Your task to perform on an android device: Show me recent news Image 0: 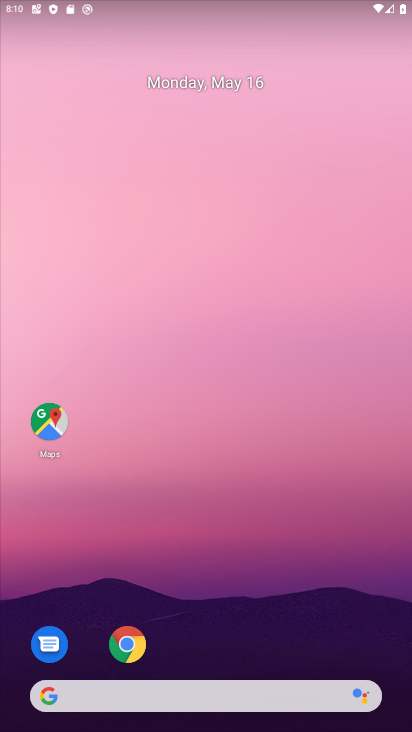
Step 0: drag from (267, 678) to (316, 31)
Your task to perform on an android device: Show me recent news Image 1: 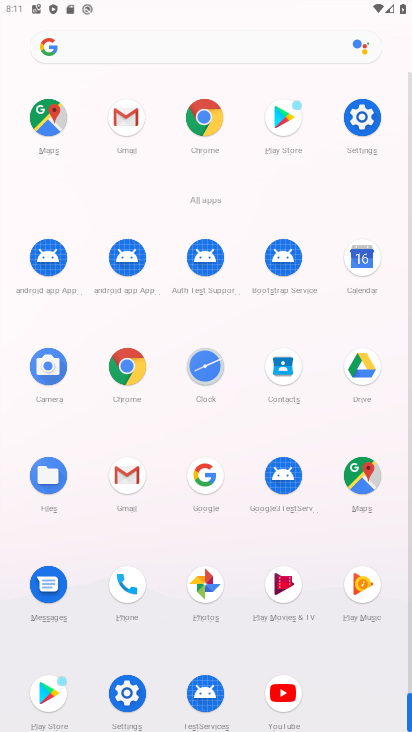
Step 1: click (120, 364)
Your task to perform on an android device: Show me recent news Image 2: 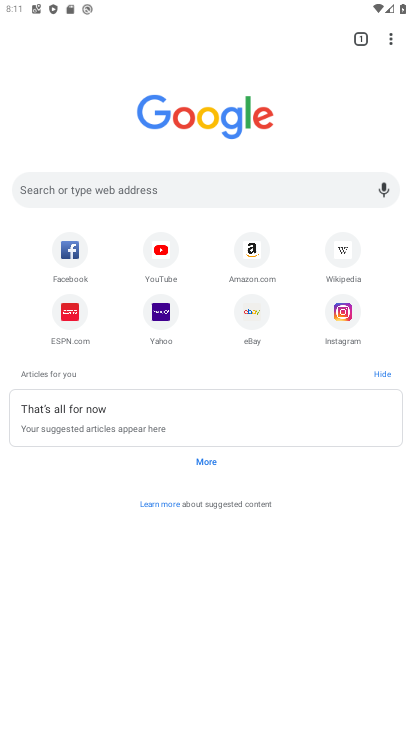
Step 2: click (206, 192)
Your task to perform on an android device: Show me recent news Image 3: 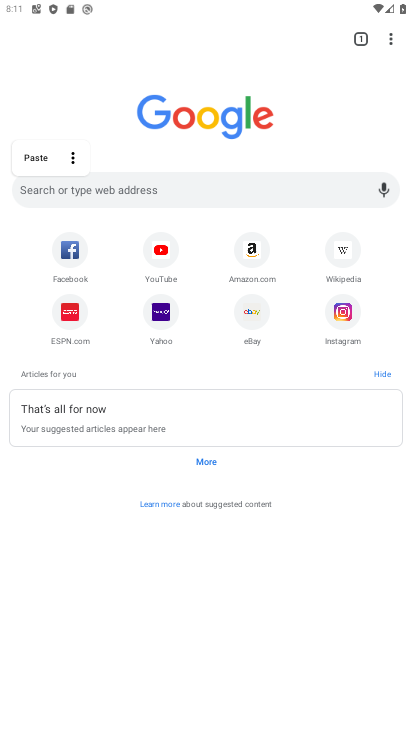
Step 3: type "recent news"
Your task to perform on an android device: Show me recent news Image 4: 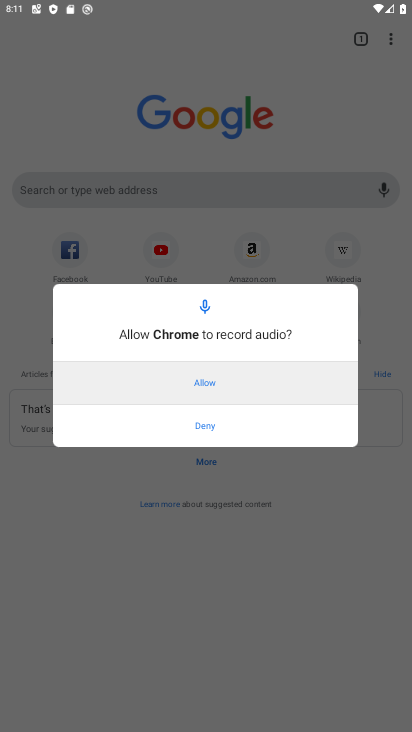
Step 4: click (210, 433)
Your task to perform on an android device: Show me recent news Image 5: 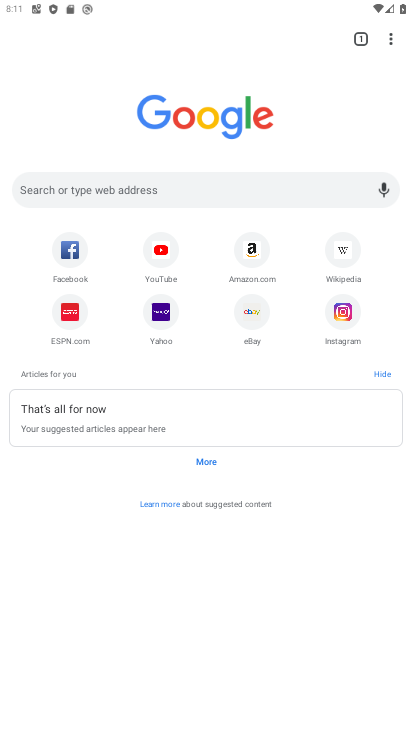
Step 5: click (267, 202)
Your task to perform on an android device: Show me recent news Image 6: 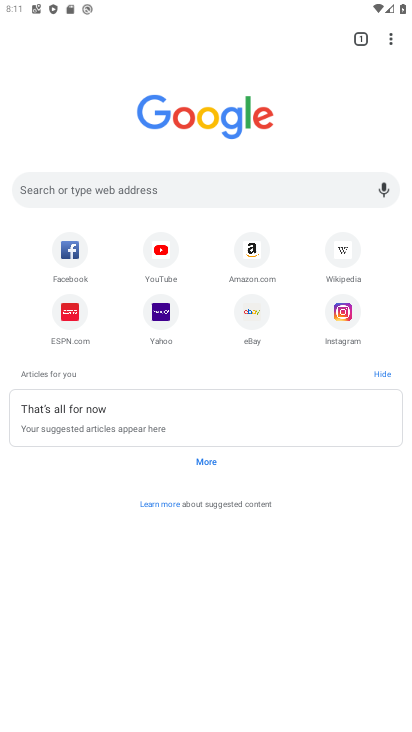
Step 6: click (267, 202)
Your task to perform on an android device: Show me recent news Image 7: 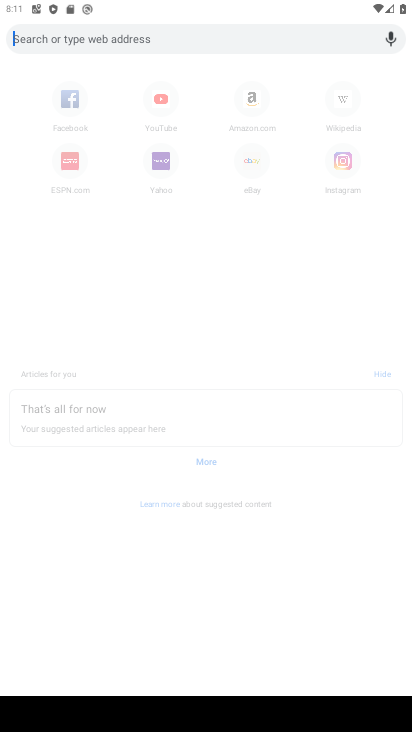
Step 7: type "recent news"
Your task to perform on an android device: Show me recent news Image 8: 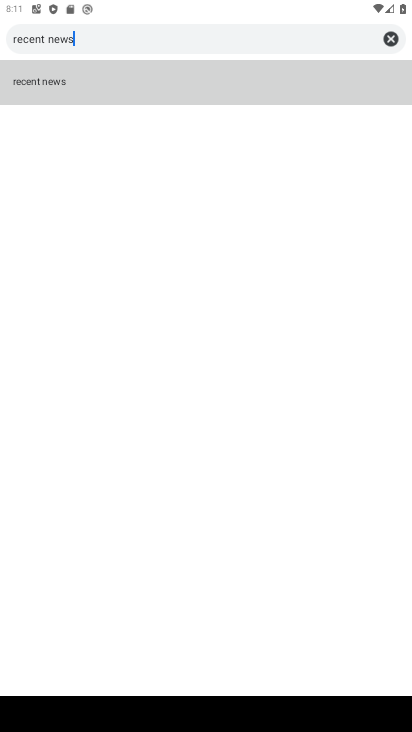
Step 8: click (171, 69)
Your task to perform on an android device: Show me recent news Image 9: 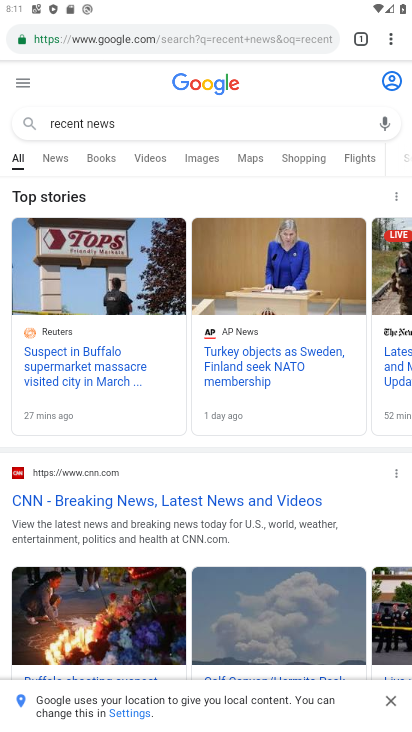
Step 9: task complete